Your task to perform on an android device: Open internet settings Image 0: 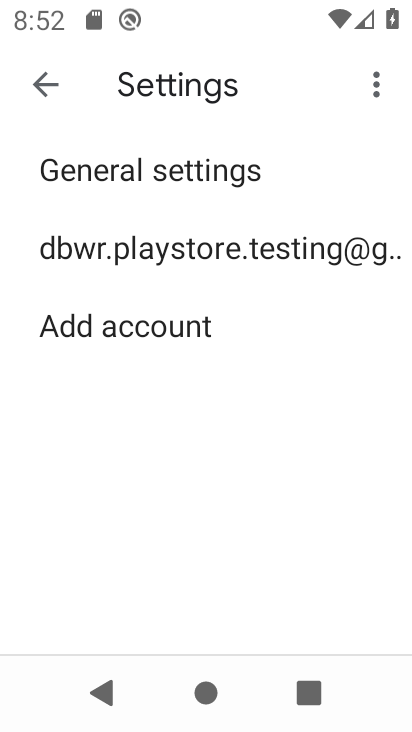
Step 0: press home button
Your task to perform on an android device: Open internet settings Image 1: 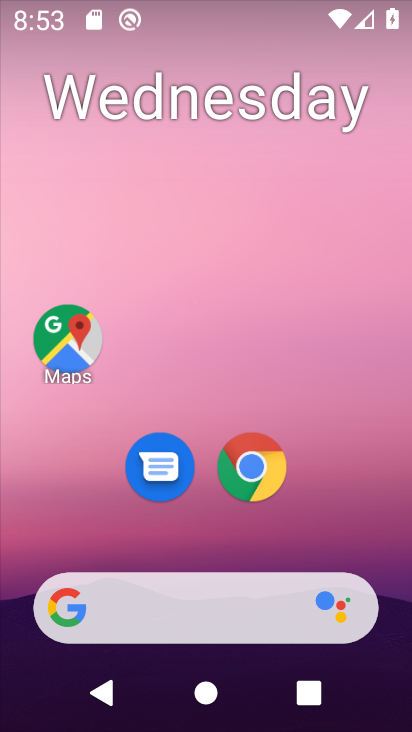
Step 1: drag from (327, 530) to (245, 92)
Your task to perform on an android device: Open internet settings Image 2: 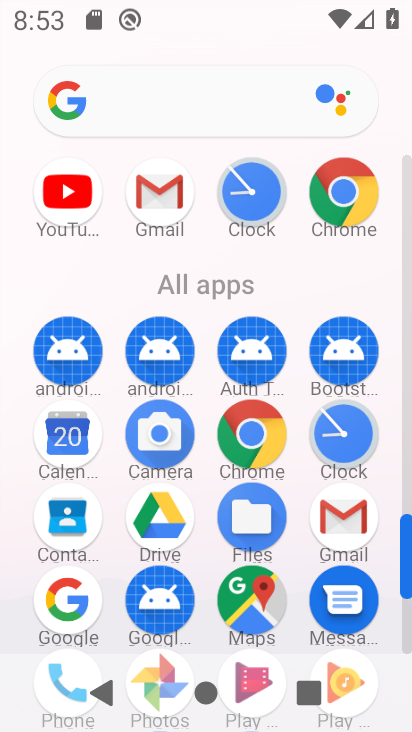
Step 2: drag from (390, 478) to (354, 159)
Your task to perform on an android device: Open internet settings Image 3: 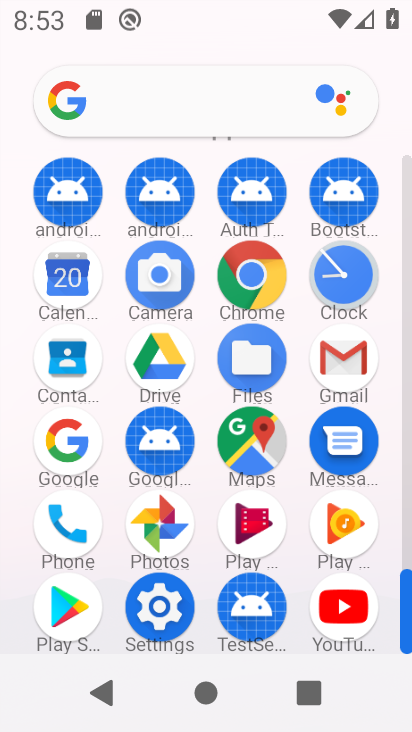
Step 3: drag from (382, 512) to (308, 134)
Your task to perform on an android device: Open internet settings Image 4: 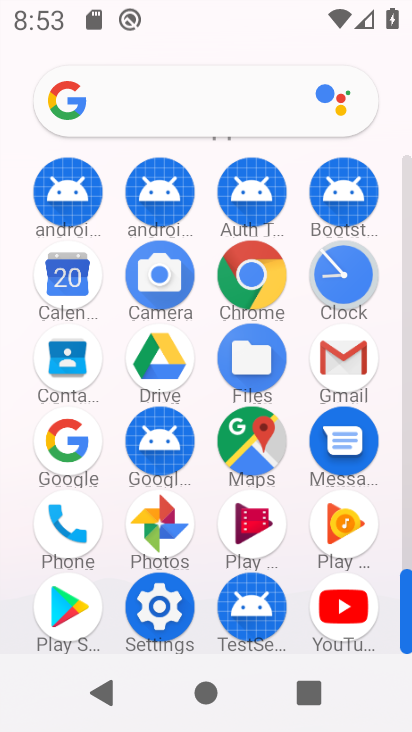
Step 4: click (163, 609)
Your task to perform on an android device: Open internet settings Image 5: 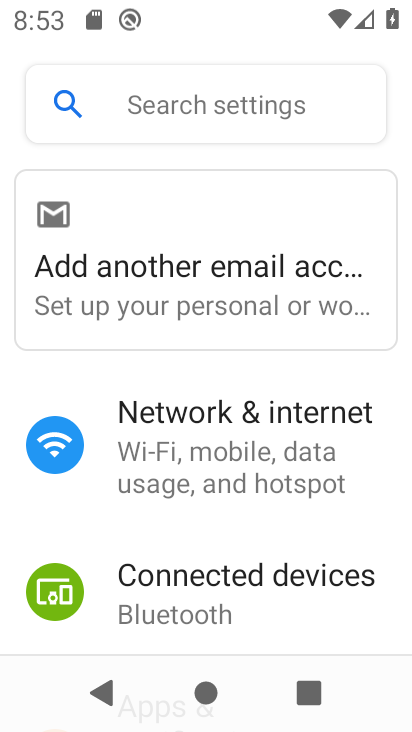
Step 5: click (319, 472)
Your task to perform on an android device: Open internet settings Image 6: 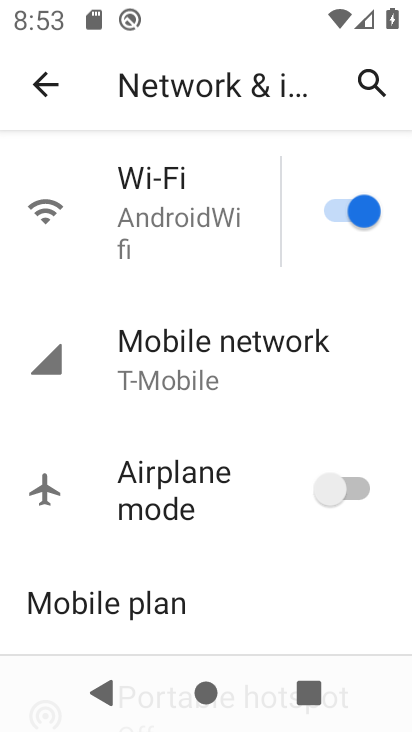
Step 6: click (145, 341)
Your task to perform on an android device: Open internet settings Image 7: 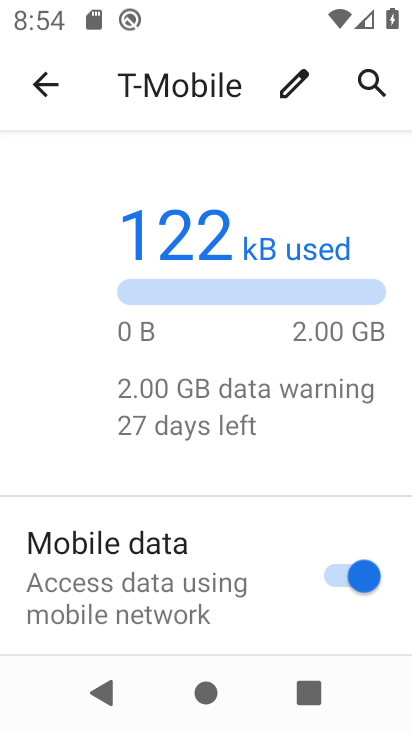
Step 7: task complete